Your task to perform on an android device: Go to Maps Image 0: 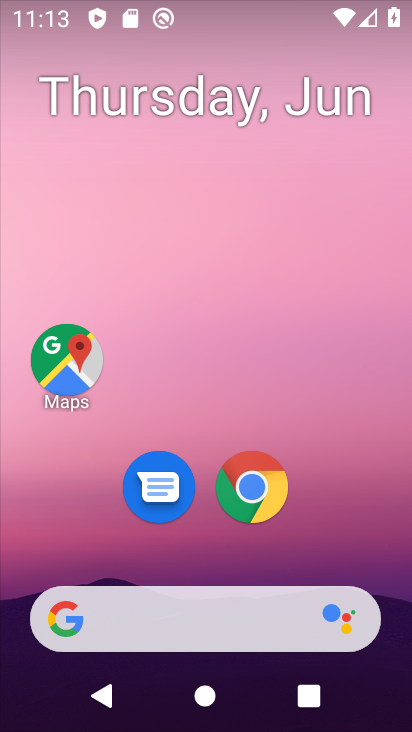
Step 0: click (74, 369)
Your task to perform on an android device: Go to Maps Image 1: 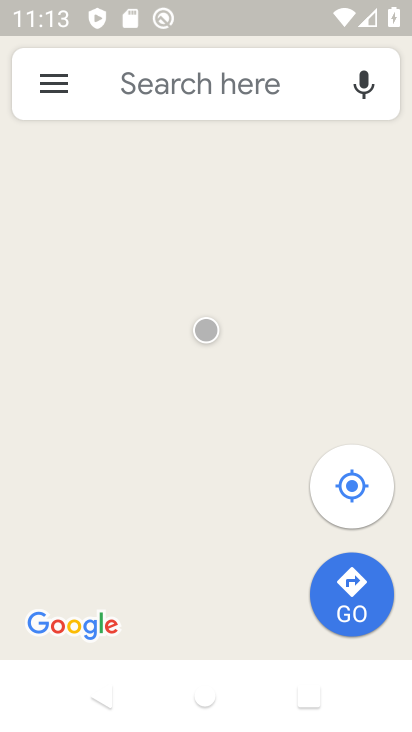
Step 1: task complete